Your task to perform on an android device: Play the latest video from the Huffington Post Image 0: 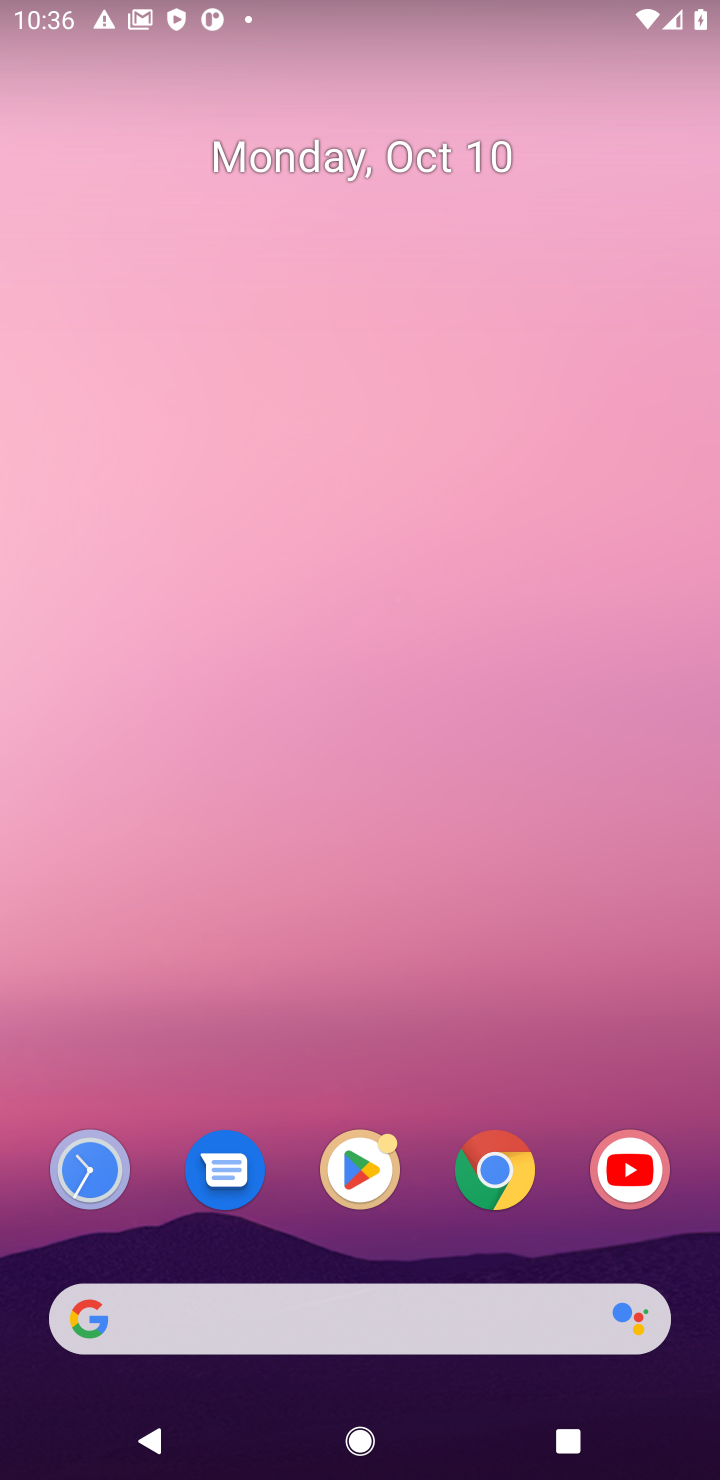
Step 0: click (650, 1178)
Your task to perform on an android device: Play the latest video from the Huffington Post Image 1: 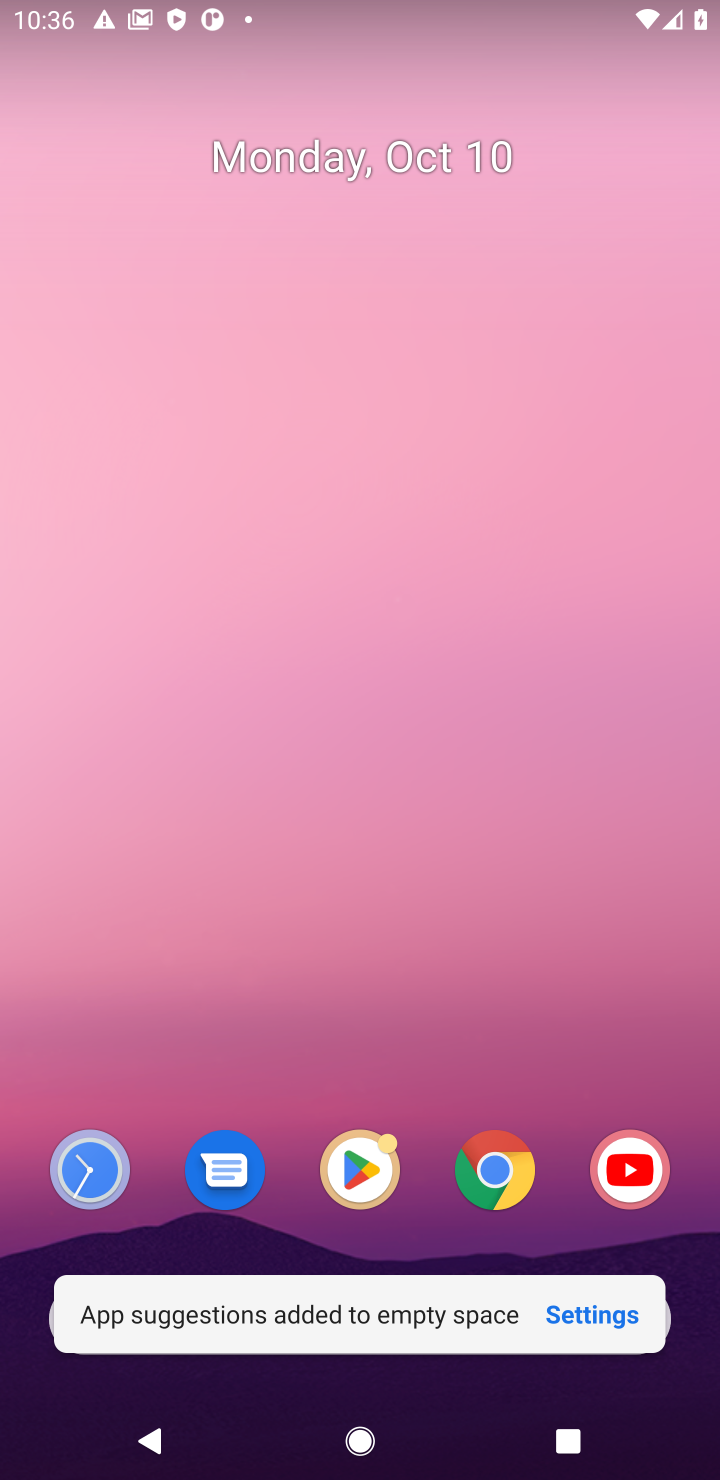
Step 1: click (650, 1178)
Your task to perform on an android device: Play the latest video from the Huffington Post Image 2: 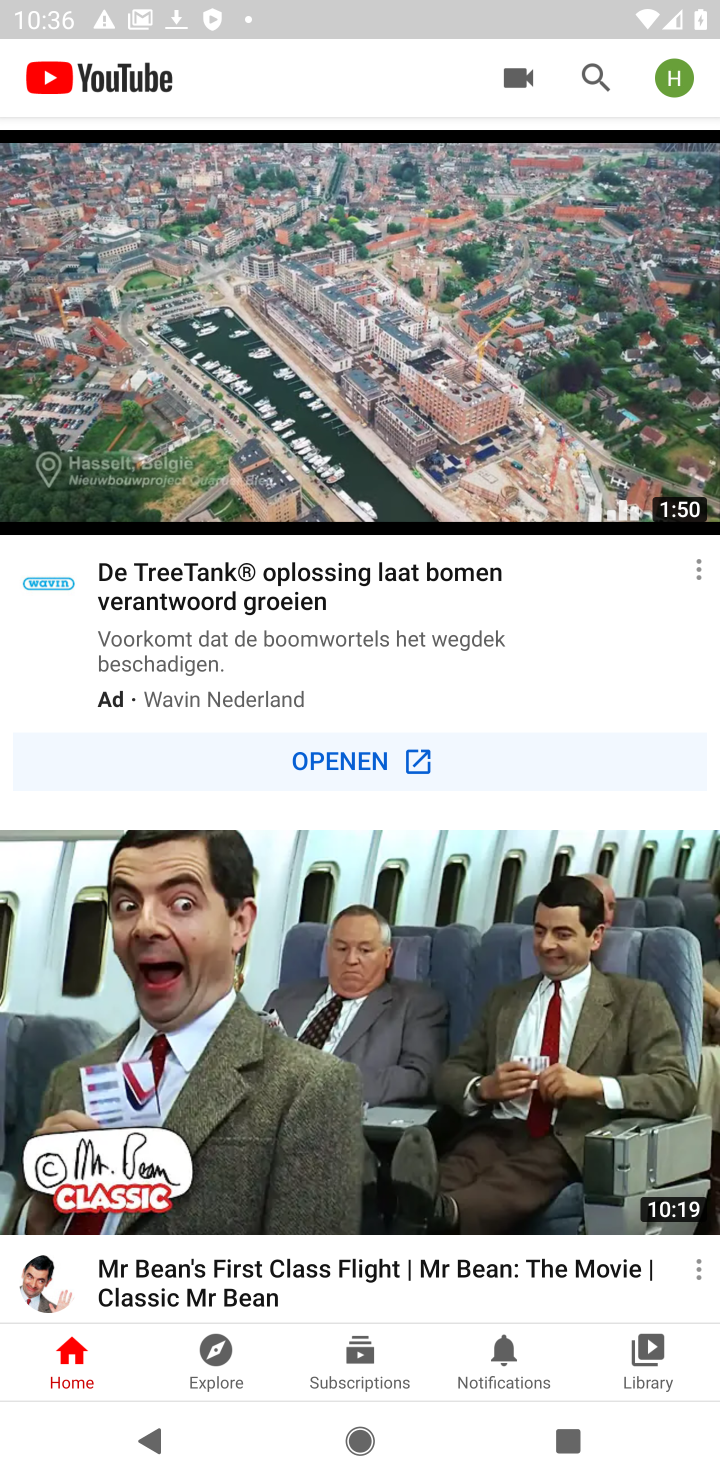
Step 2: click (594, 89)
Your task to perform on an android device: Play the latest video from the Huffington Post Image 3: 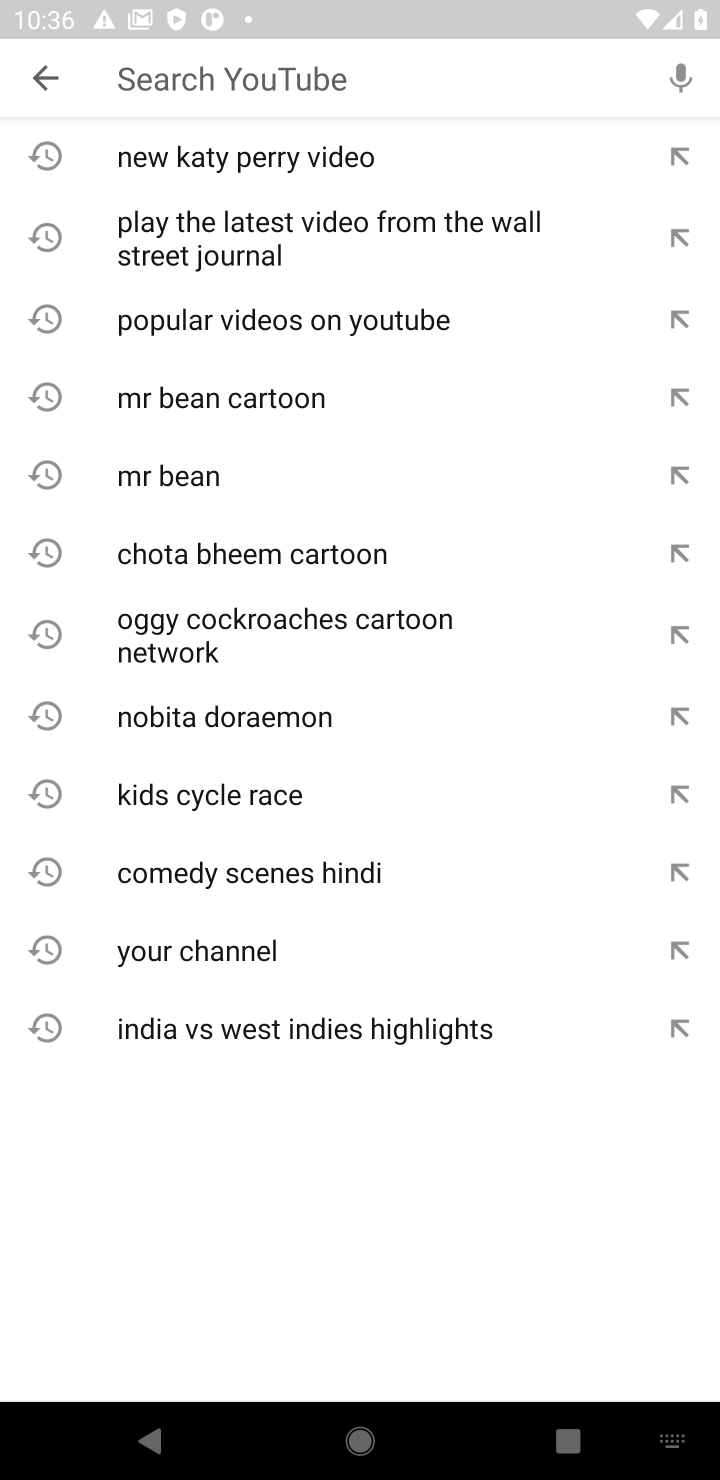
Step 3: type "Huffington Post"
Your task to perform on an android device: Play the latest video from the Huffington Post Image 4: 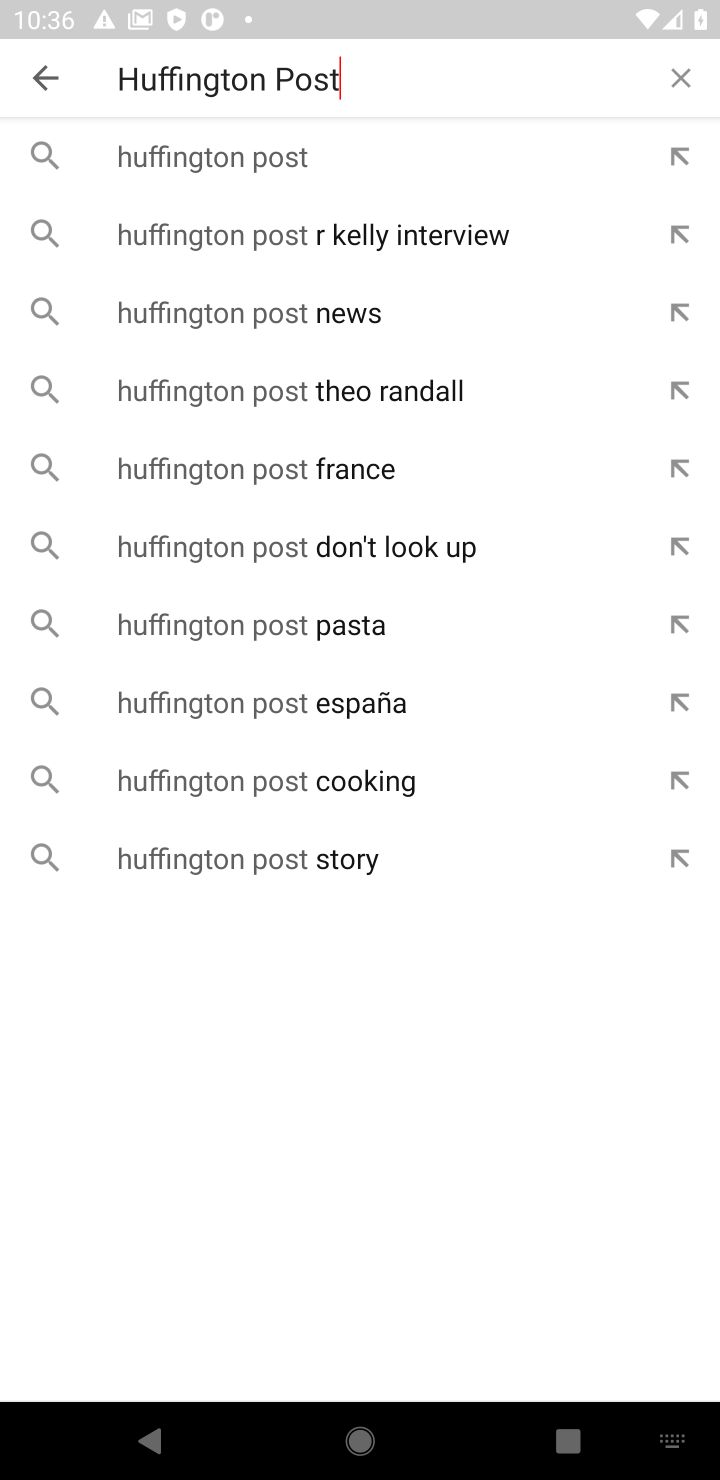
Step 4: click (223, 148)
Your task to perform on an android device: Play the latest video from the Huffington Post Image 5: 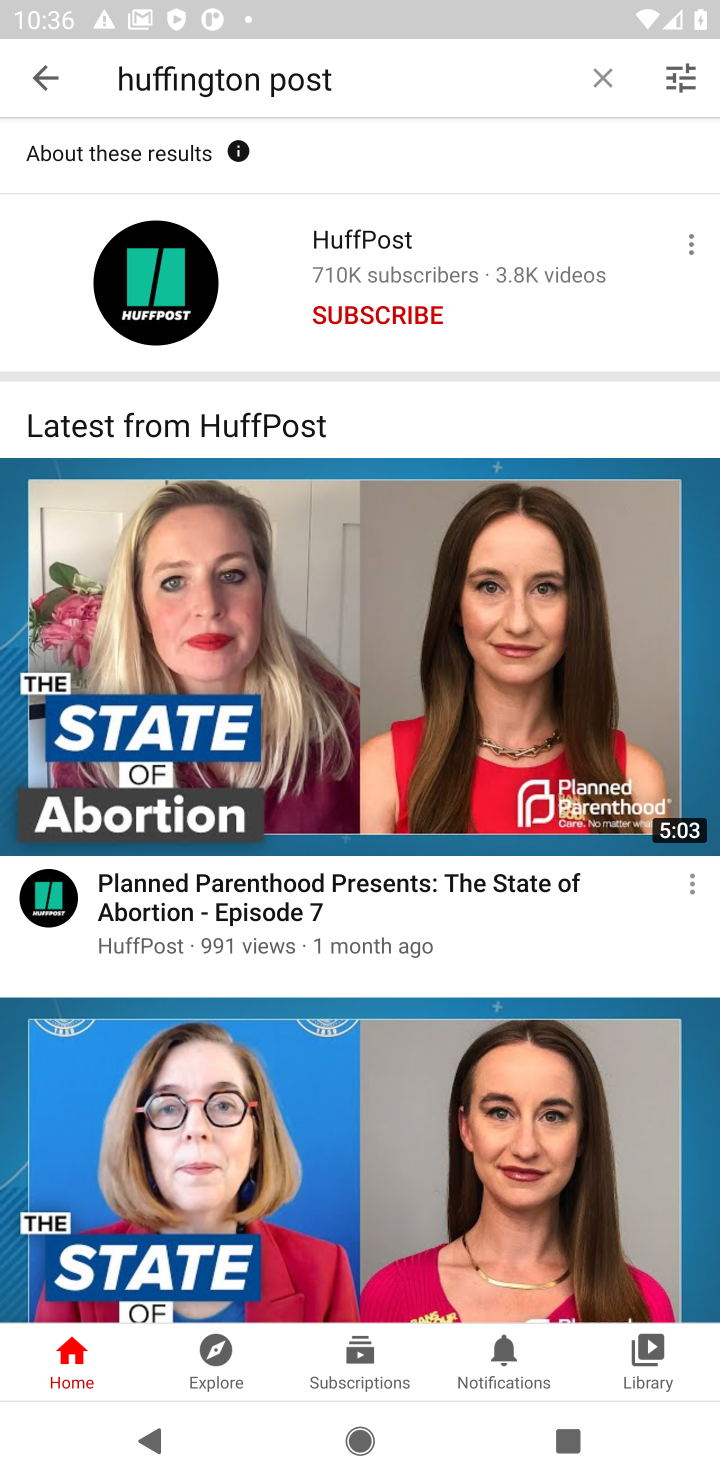
Step 5: click (656, 731)
Your task to perform on an android device: Play the latest video from the Huffington Post Image 6: 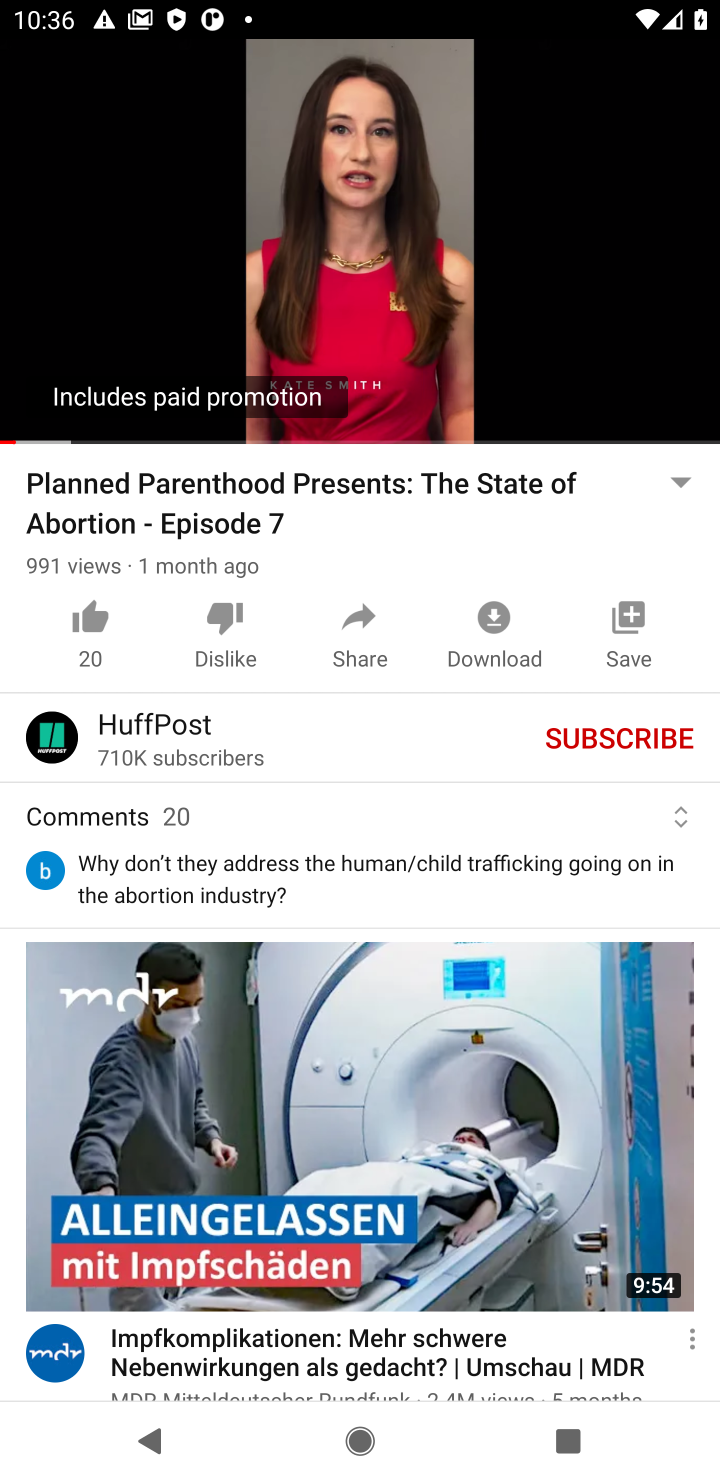
Step 6: task complete